Your task to perform on an android device: turn on priority inbox in the gmail app Image 0: 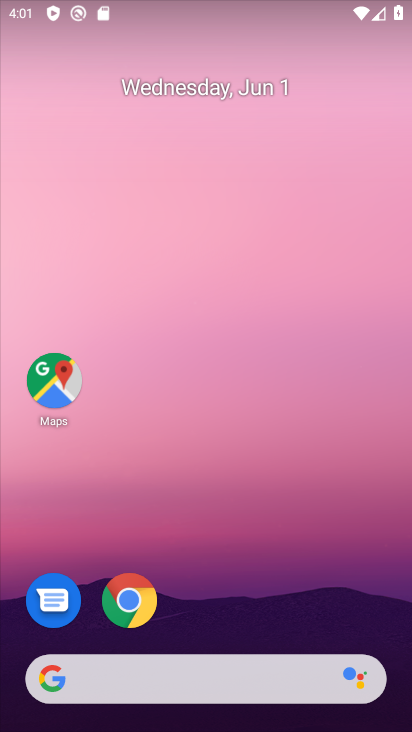
Step 0: click (137, 606)
Your task to perform on an android device: turn on priority inbox in the gmail app Image 1: 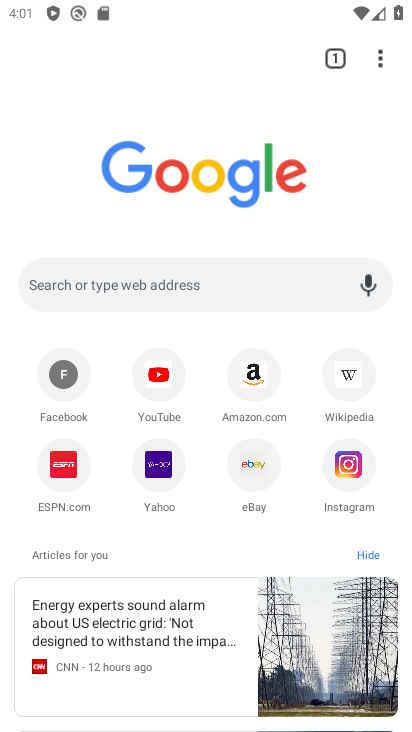
Step 1: click (382, 61)
Your task to perform on an android device: turn on priority inbox in the gmail app Image 2: 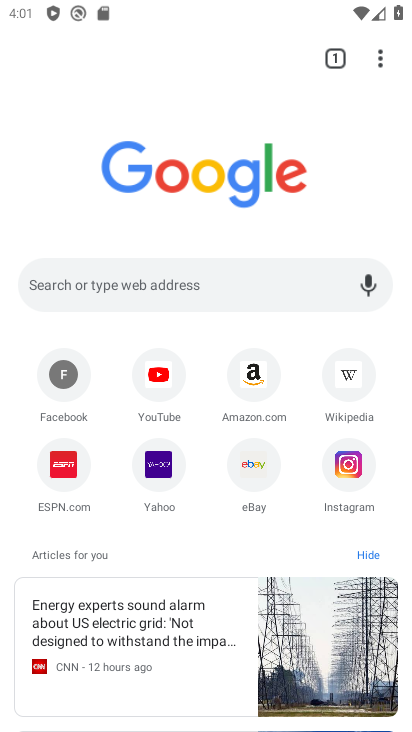
Step 2: click (366, 54)
Your task to perform on an android device: turn on priority inbox in the gmail app Image 3: 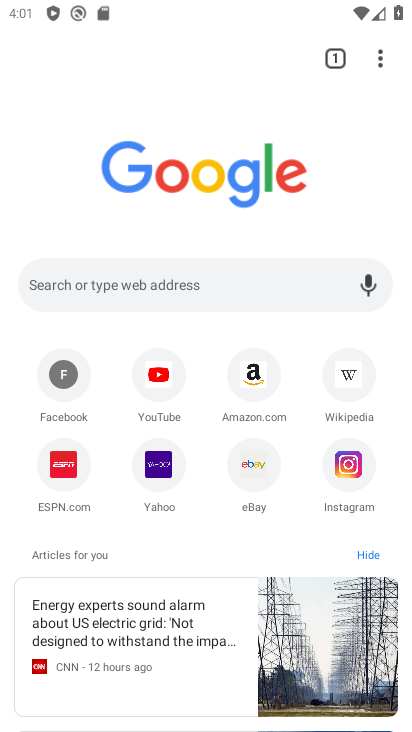
Step 3: click (379, 61)
Your task to perform on an android device: turn on priority inbox in the gmail app Image 4: 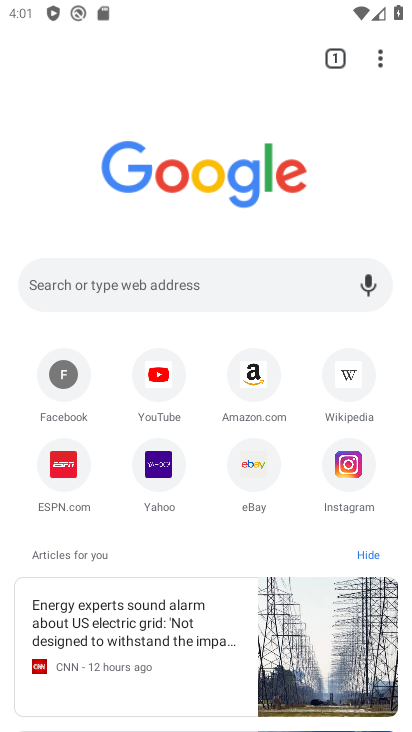
Step 4: click (380, 61)
Your task to perform on an android device: turn on priority inbox in the gmail app Image 5: 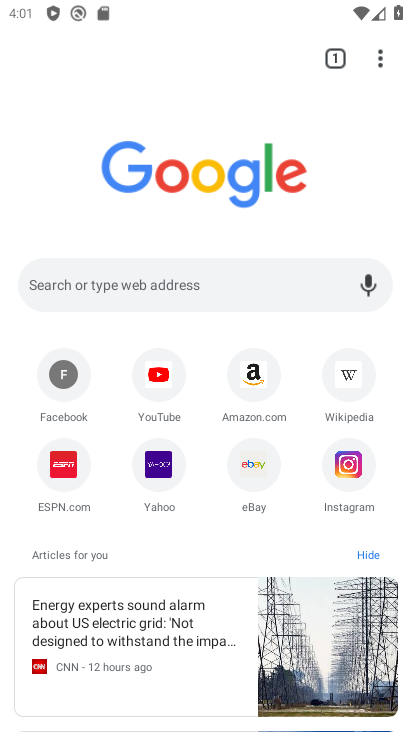
Step 5: click (380, 61)
Your task to perform on an android device: turn on priority inbox in the gmail app Image 6: 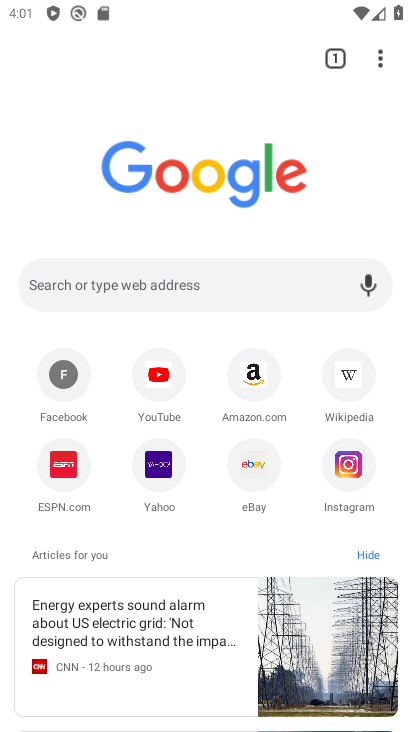
Step 6: click (381, 52)
Your task to perform on an android device: turn on priority inbox in the gmail app Image 7: 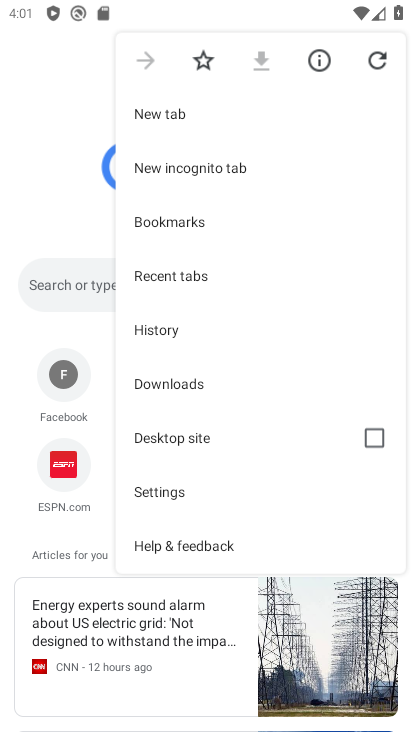
Step 7: click (205, 477)
Your task to perform on an android device: turn on priority inbox in the gmail app Image 8: 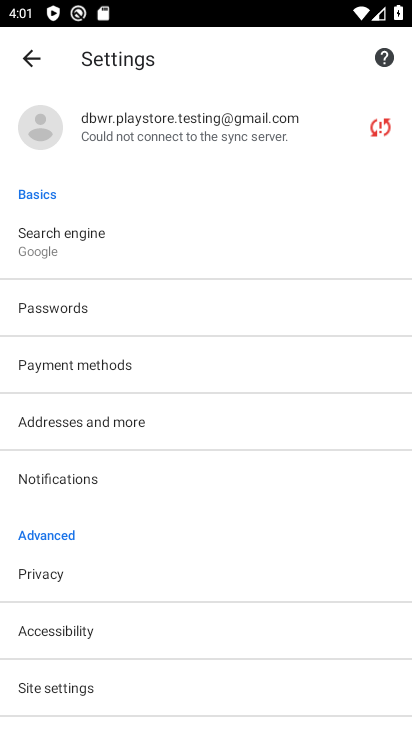
Step 8: click (66, 689)
Your task to perform on an android device: turn on priority inbox in the gmail app Image 9: 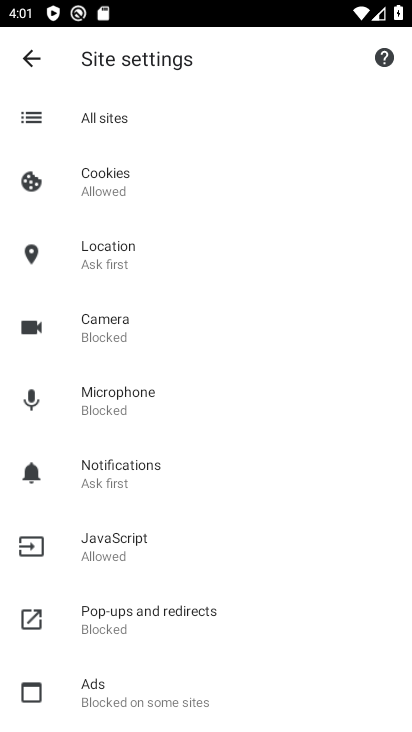
Step 9: click (107, 539)
Your task to perform on an android device: turn on priority inbox in the gmail app Image 10: 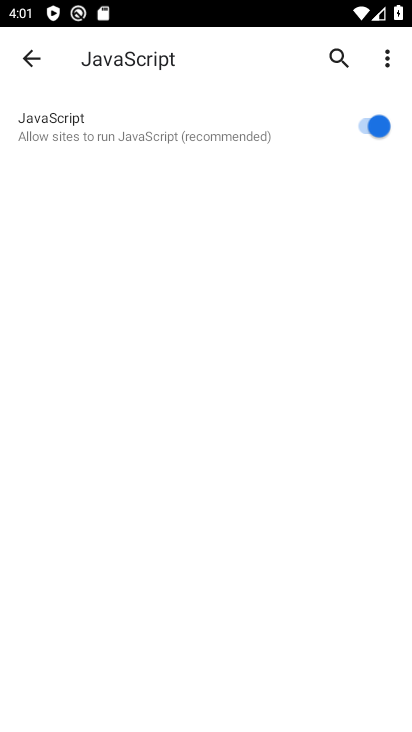
Step 10: click (374, 119)
Your task to perform on an android device: turn on priority inbox in the gmail app Image 11: 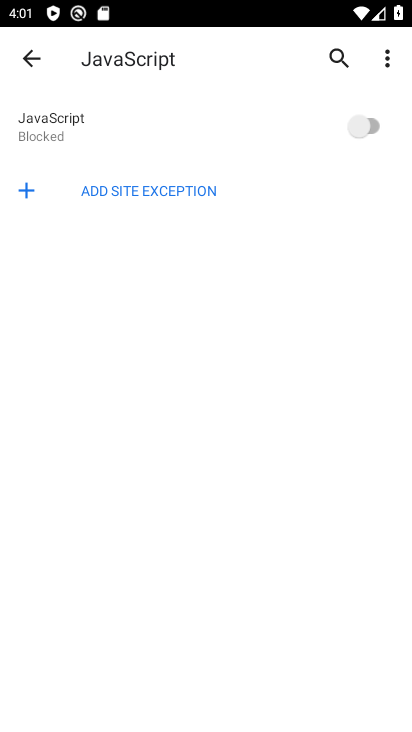
Step 11: task complete